Your task to perform on an android device: move a message to another label in the gmail app Image 0: 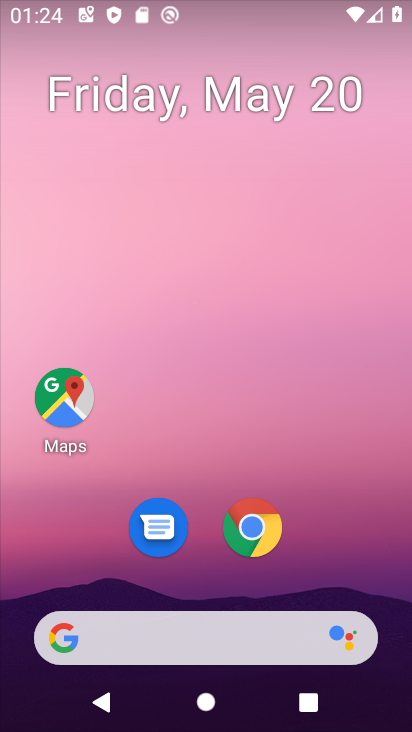
Step 0: press home button
Your task to perform on an android device: move a message to another label in the gmail app Image 1: 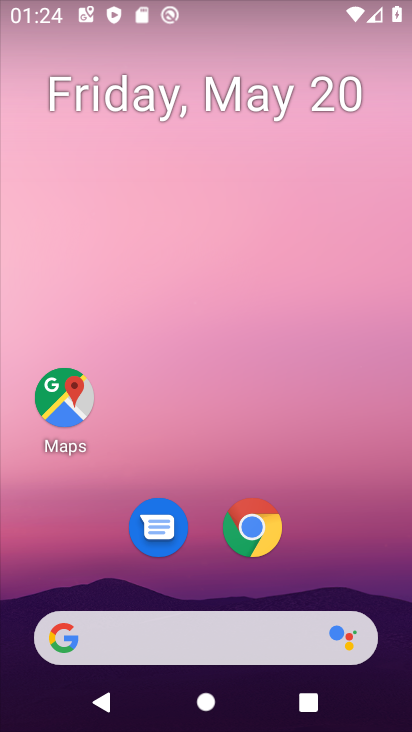
Step 1: drag from (217, 613) to (344, 179)
Your task to perform on an android device: move a message to another label in the gmail app Image 2: 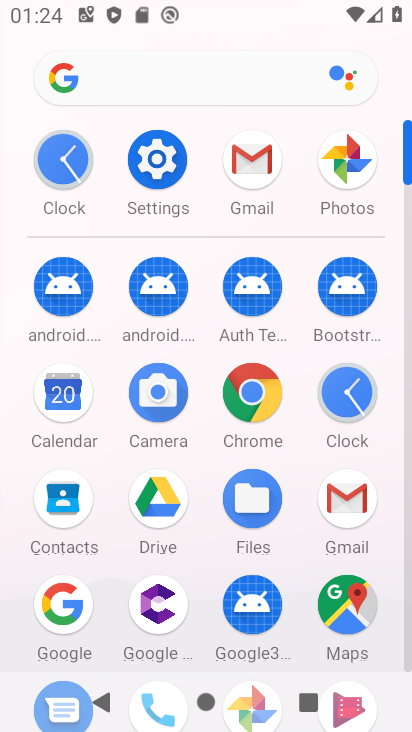
Step 2: click (263, 175)
Your task to perform on an android device: move a message to another label in the gmail app Image 3: 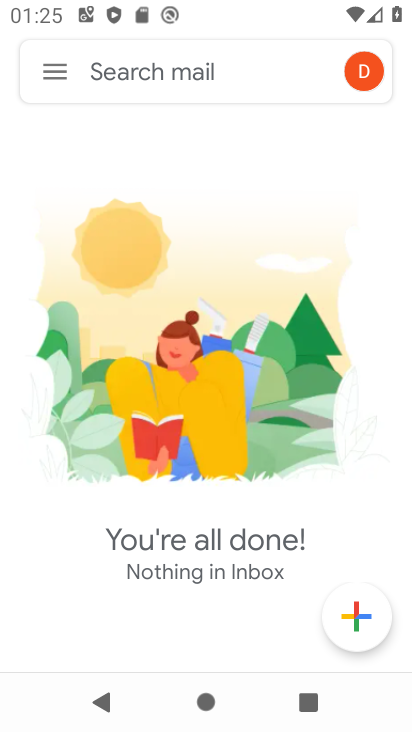
Step 3: task complete